Your task to perform on an android device: turn off notifications in google photos Image 0: 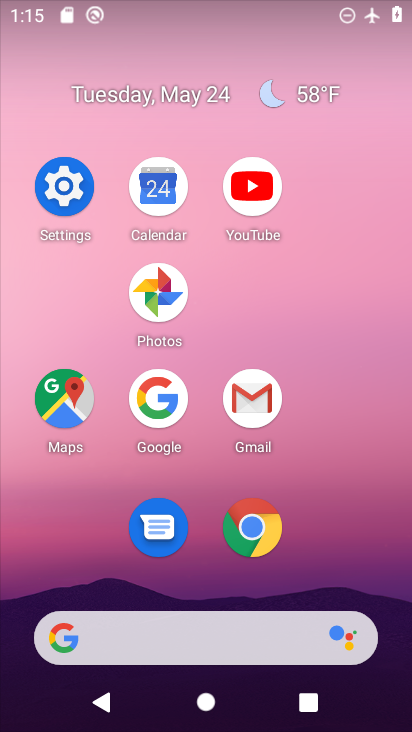
Step 0: click (175, 294)
Your task to perform on an android device: turn off notifications in google photos Image 1: 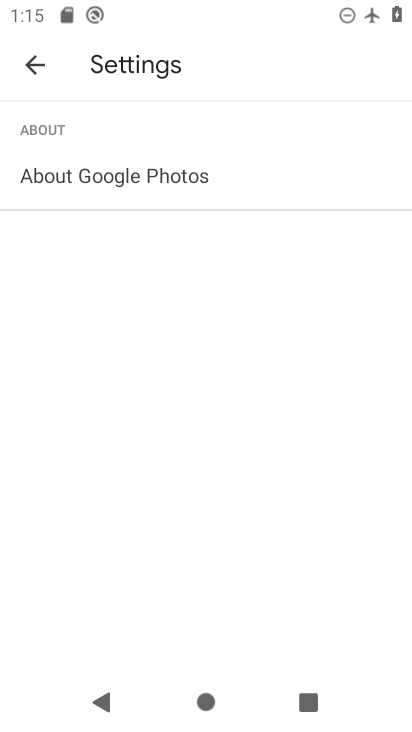
Step 1: click (37, 76)
Your task to perform on an android device: turn off notifications in google photos Image 2: 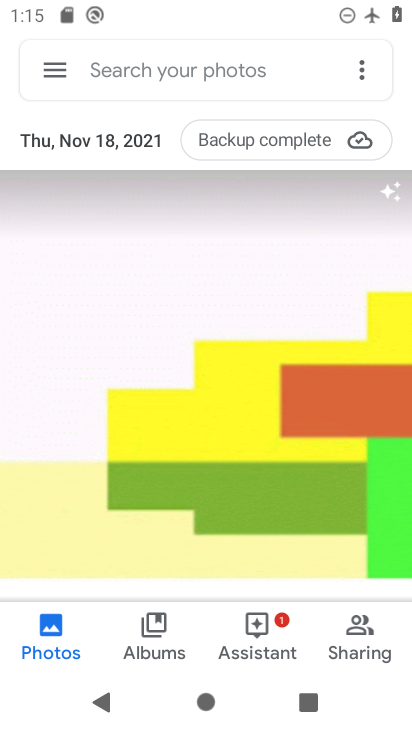
Step 2: click (31, 95)
Your task to perform on an android device: turn off notifications in google photos Image 3: 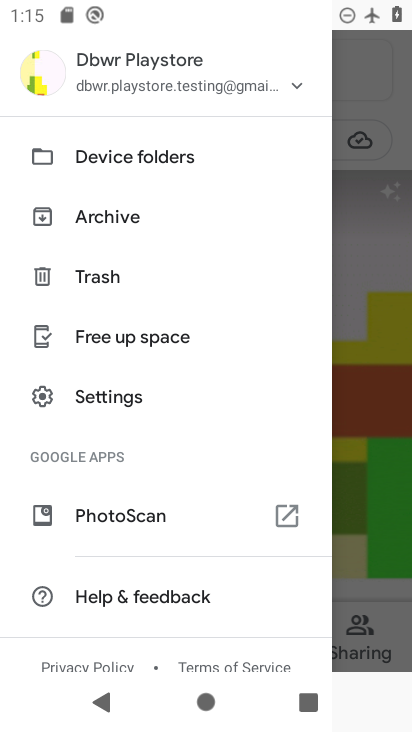
Step 3: click (121, 413)
Your task to perform on an android device: turn off notifications in google photos Image 4: 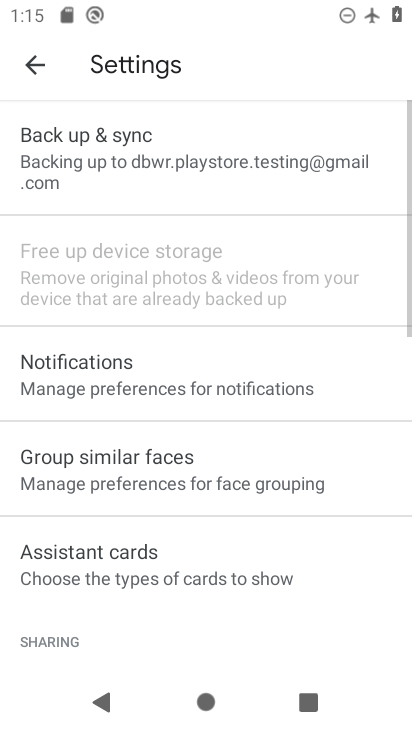
Step 4: click (114, 403)
Your task to perform on an android device: turn off notifications in google photos Image 5: 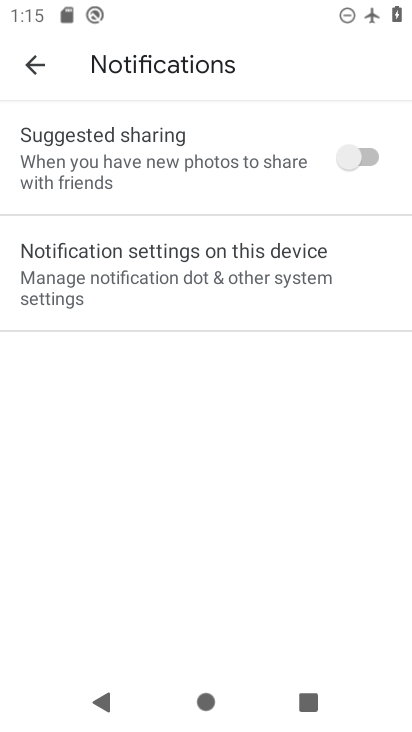
Step 5: click (217, 287)
Your task to perform on an android device: turn off notifications in google photos Image 6: 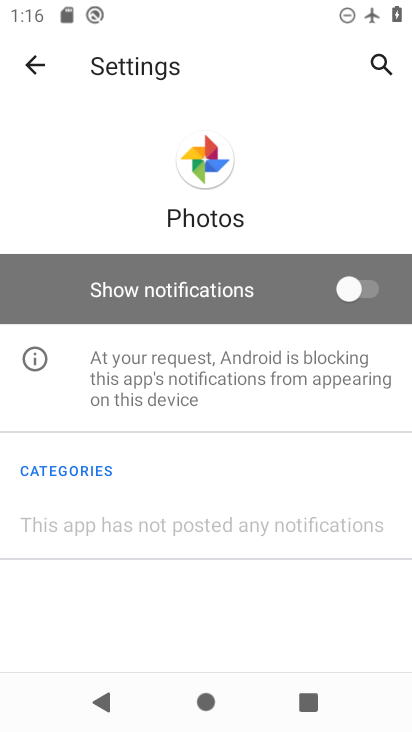
Step 6: task complete